Your task to perform on an android device: Open Wikipedia Image 0: 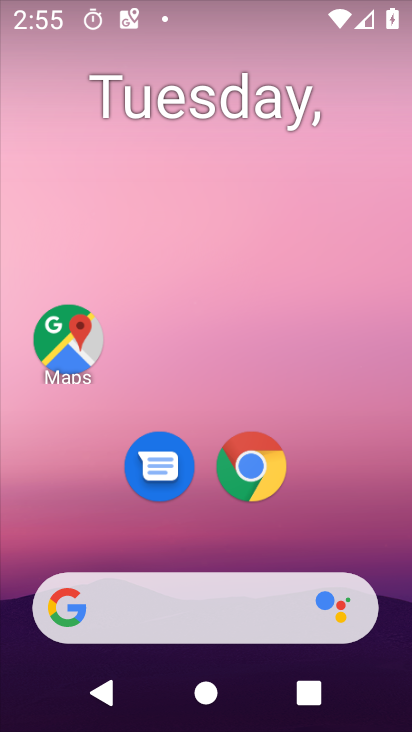
Step 0: drag from (377, 542) to (365, 259)
Your task to perform on an android device: Open Wikipedia Image 1: 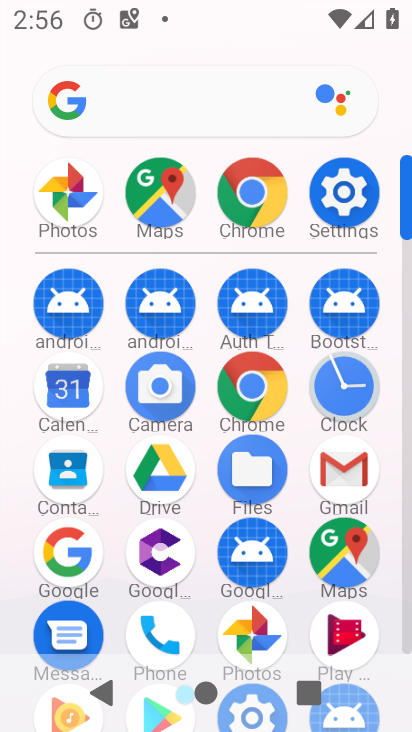
Step 1: click (274, 378)
Your task to perform on an android device: Open Wikipedia Image 2: 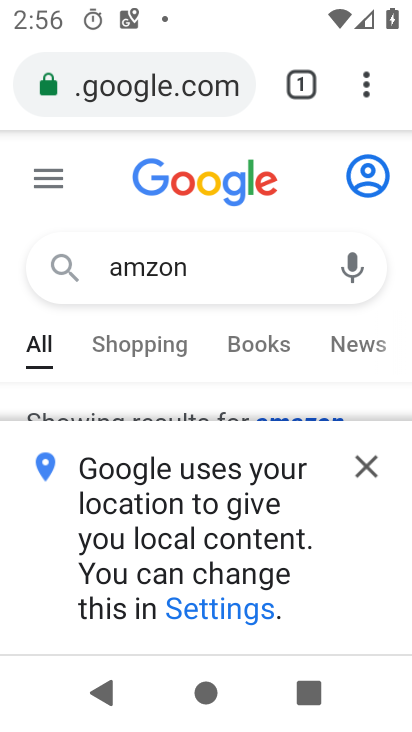
Step 2: click (208, 95)
Your task to perform on an android device: Open Wikipedia Image 3: 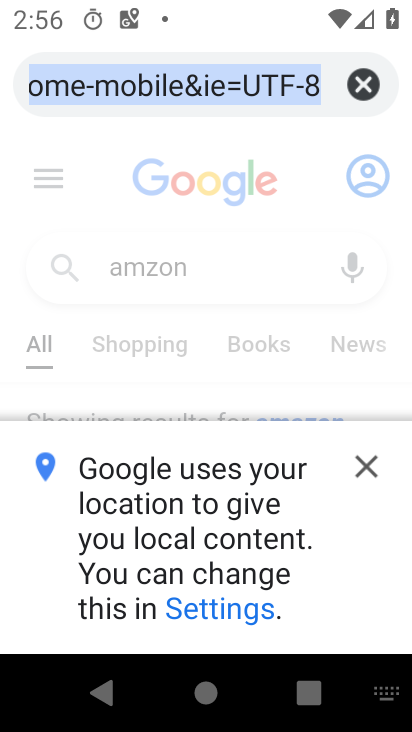
Step 3: click (361, 82)
Your task to perform on an android device: Open Wikipedia Image 4: 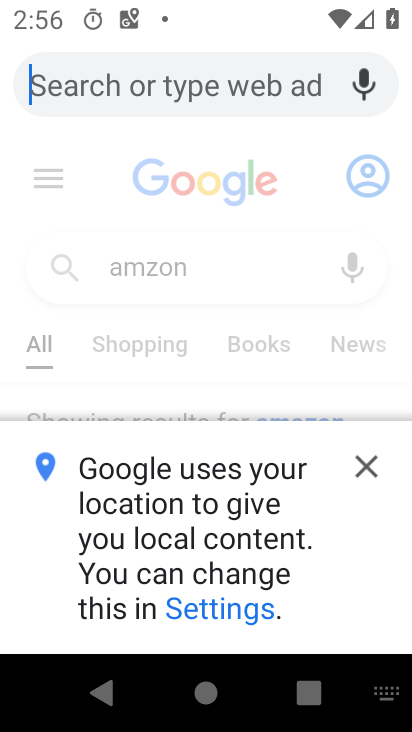
Step 4: type "wikipedia"
Your task to perform on an android device: Open Wikipedia Image 5: 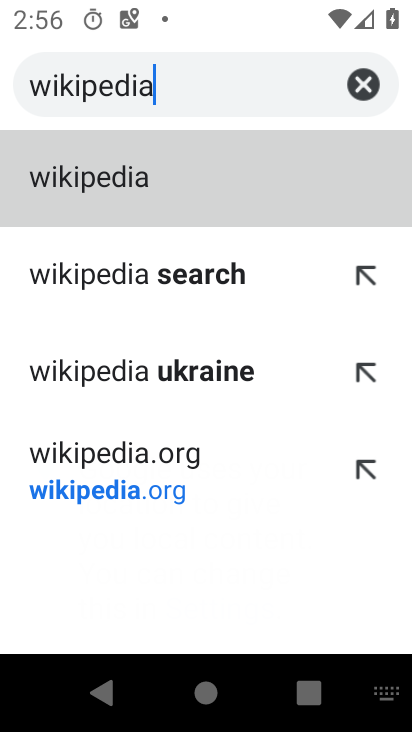
Step 5: click (242, 174)
Your task to perform on an android device: Open Wikipedia Image 6: 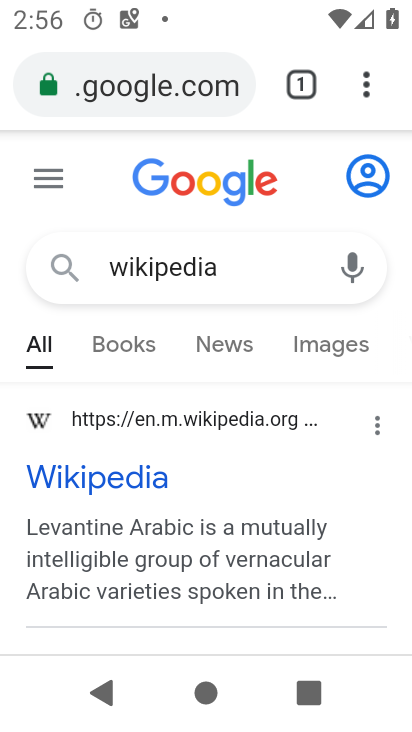
Step 6: task complete